Your task to perform on an android device: toggle notifications settings in the gmail app Image 0: 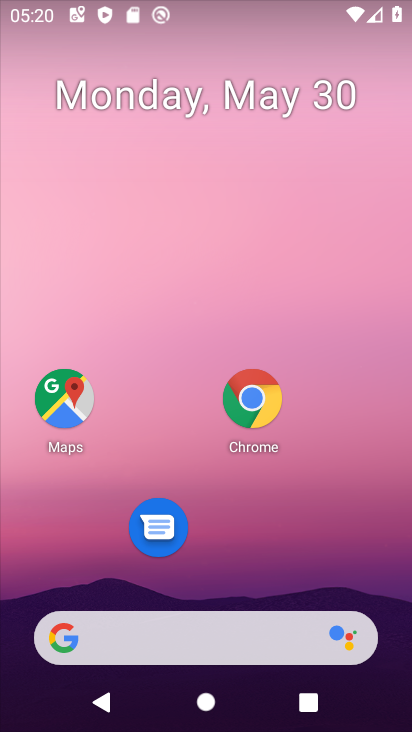
Step 0: drag from (236, 726) to (235, 19)
Your task to perform on an android device: toggle notifications settings in the gmail app Image 1: 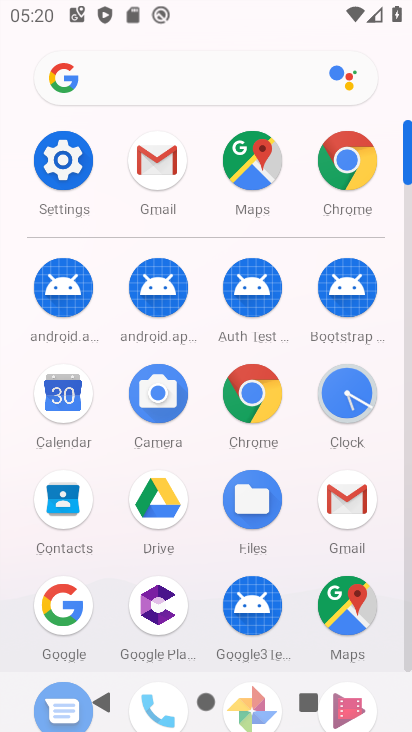
Step 1: click (352, 494)
Your task to perform on an android device: toggle notifications settings in the gmail app Image 2: 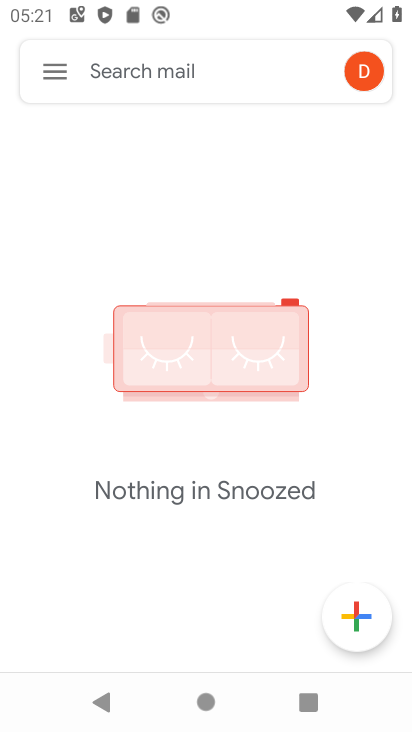
Step 2: click (58, 71)
Your task to perform on an android device: toggle notifications settings in the gmail app Image 3: 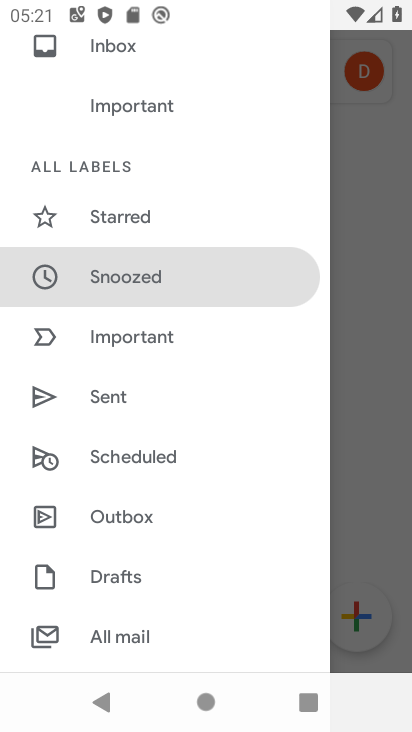
Step 3: drag from (152, 620) to (157, 474)
Your task to perform on an android device: toggle notifications settings in the gmail app Image 4: 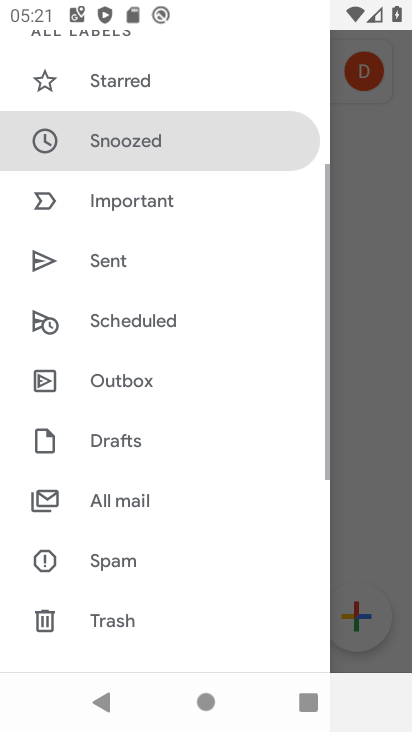
Step 4: drag from (157, 216) to (157, 129)
Your task to perform on an android device: toggle notifications settings in the gmail app Image 5: 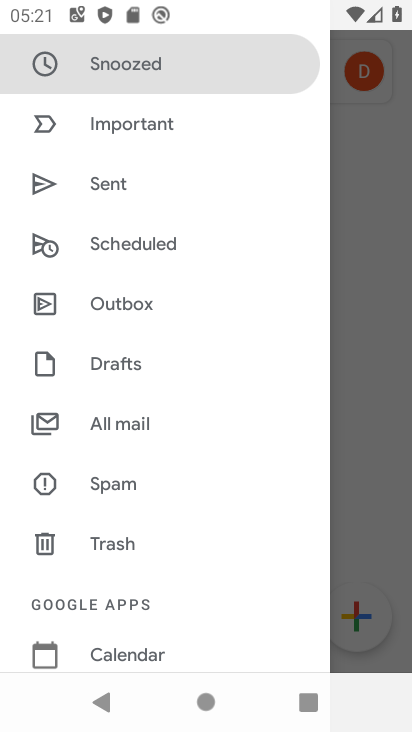
Step 5: drag from (132, 644) to (136, 294)
Your task to perform on an android device: toggle notifications settings in the gmail app Image 6: 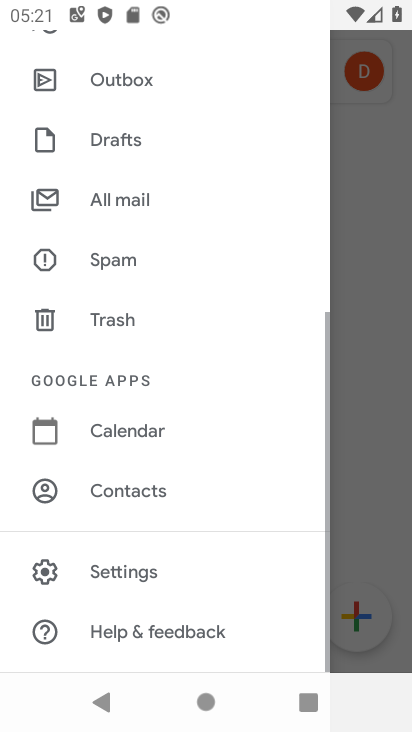
Step 6: click (117, 558)
Your task to perform on an android device: toggle notifications settings in the gmail app Image 7: 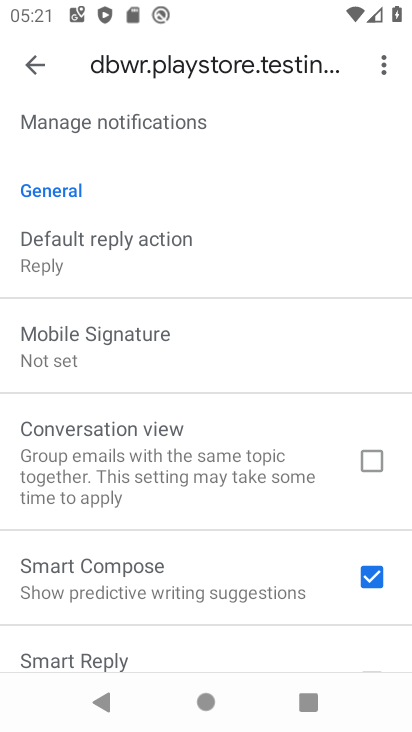
Step 7: drag from (181, 209) to (186, 556)
Your task to perform on an android device: toggle notifications settings in the gmail app Image 8: 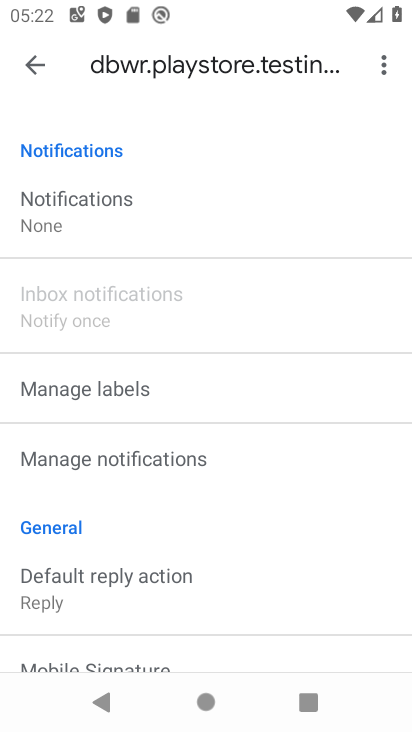
Step 8: drag from (228, 149) to (228, 241)
Your task to perform on an android device: toggle notifications settings in the gmail app Image 9: 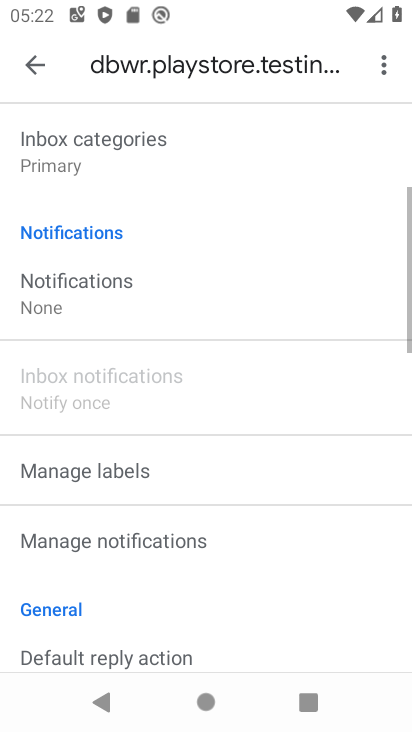
Step 9: click (229, 452)
Your task to perform on an android device: toggle notifications settings in the gmail app Image 10: 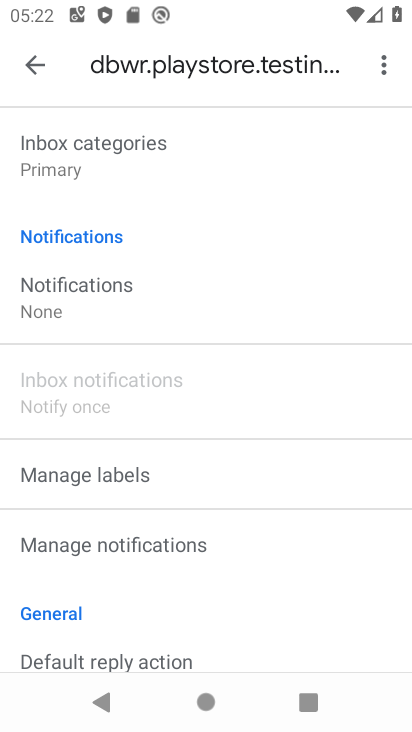
Step 10: click (76, 298)
Your task to perform on an android device: toggle notifications settings in the gmail app Image 11: 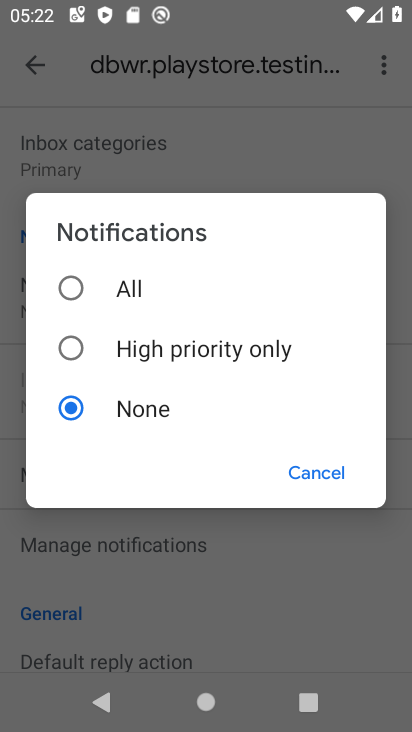
Step 11: click (75, 286)
Your task to perform on an android device: toggle notifications settings in the gmail app Image 12: 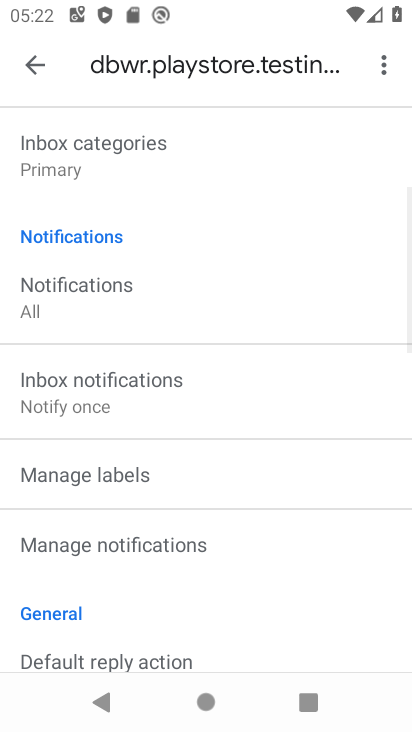
Step 12: task complete